Your task to perform on an android device: install app "Adobe Acrobat Reader: Edit PDF" Image 0: 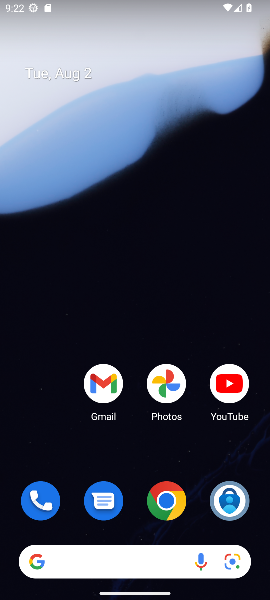
Step 0: drag from (129, 539) to (146, 172)
Your task to perform on an android device: install app "Adobe Acrobat Reader: Edit PDF" Image 1: 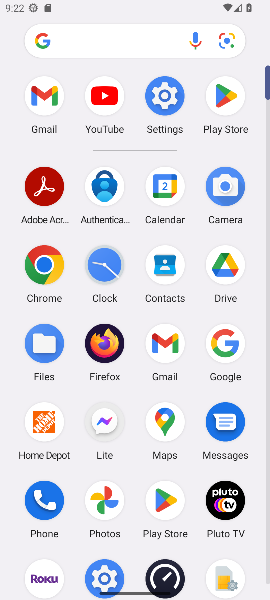
Step 1: click (238, 96)
Your task to perform on an android device: install app "Adobe Acrobat Reader: Edit PDF" Image 2: 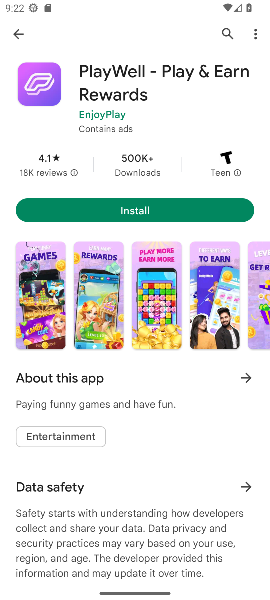
Step 2: click (224, 27)
Your task to perform on an android device: install app "Adobe Acrobat Reader: Edit PDF" Image 3: 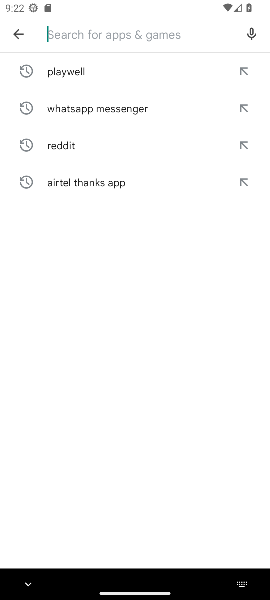
Step 3: type "Adobe Acrobat Reader: Edit PDF"
Your task to perform on an android device: install app "Adobe Acrobat Reader: Edit PDF" Image 4: 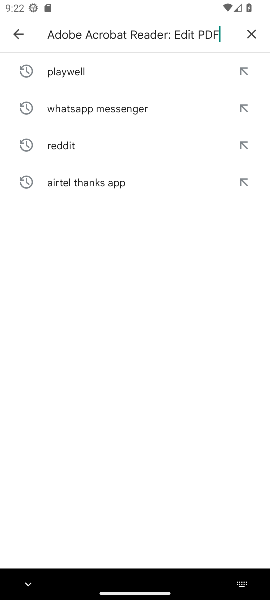
Step 4: type ""
Your task to perform on an android device: install app "Adobe Acrobat Reader: Edit PDF" Image 5: 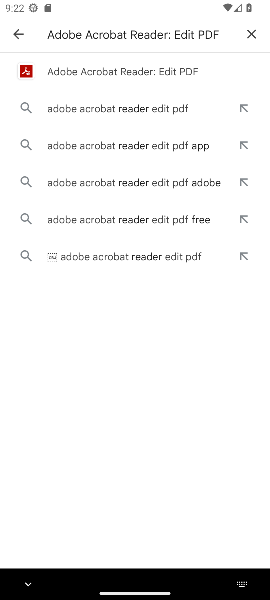
Step 5: click (122, 70)
Your task to perform on an android device: install app "Adobe Acrobat Reader: Edit PDF" Image 6: 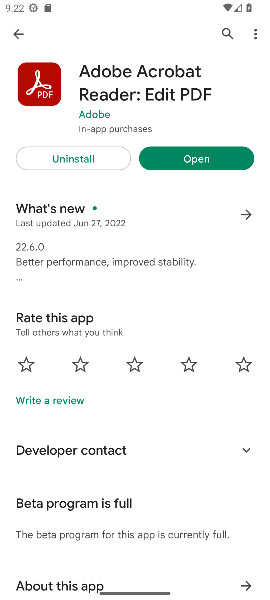
Step 6: task complete